Your task to perform on an android device: Open Google Chrome and open the bookmarks view Image 0: 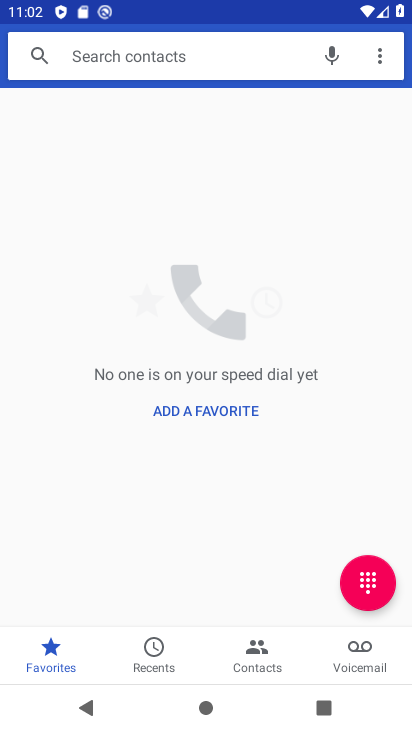
Step 0: press home button
Your task to perform on an android device: Open Google Chrome and open the bookmarks view Image 1: 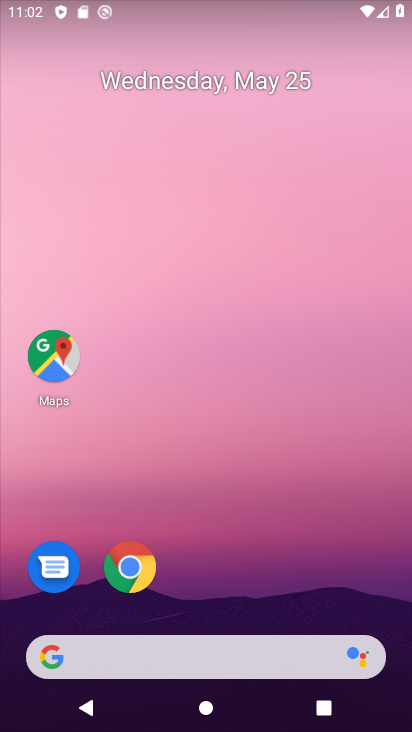
Step 1: click (134, 566)
Your task to perform on an android device: Open Google Chrome and open the bookmarks view Image 2: 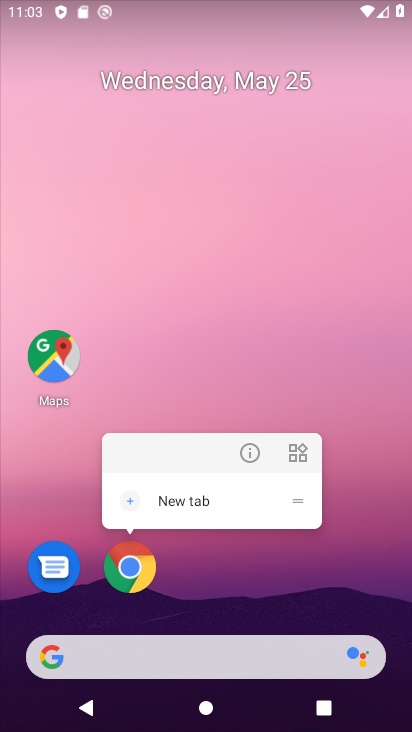
Step 2: click (149, 578)
Your task to perform on an android device: Open Google Chrome and open the bookmarks view Image 3: 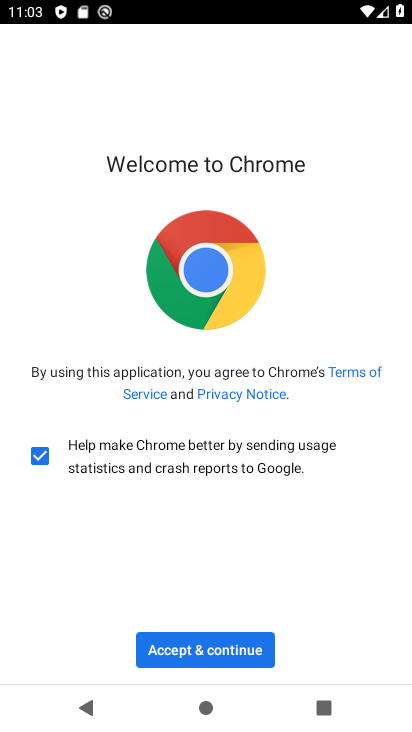
Step 3: click (225, 633)
Your task to perform on an android device: Open Google Chrome and open the bookmarks view Image 4: 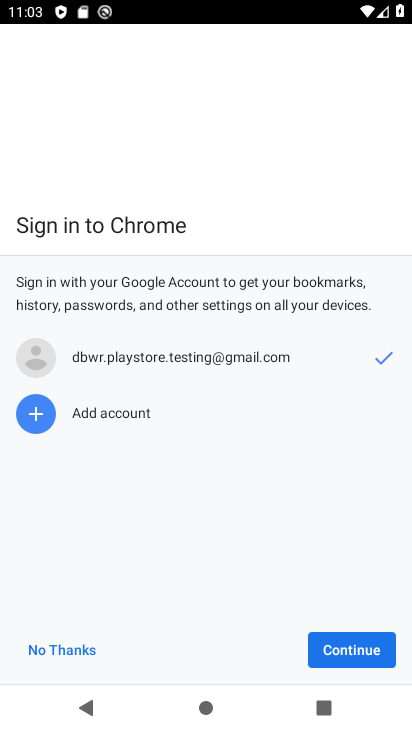
Step 4: click (341, 645)
Your task to perform on an android device: Open Google Chrome and open the bookmarks view Image 5: 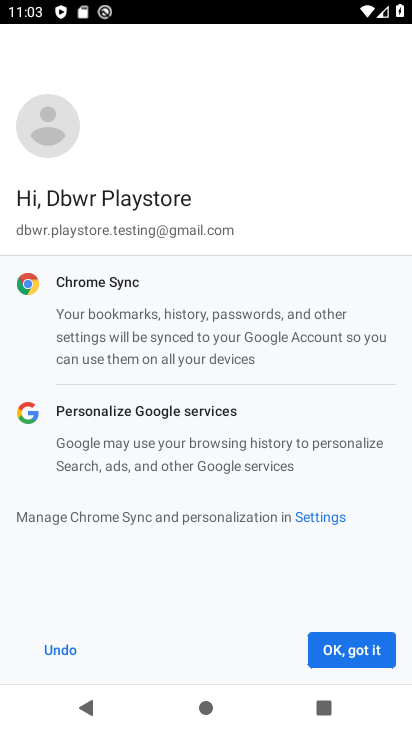
Step 5: click (341, 645)
Your task to perform on an android device: Open Google Chrome and open the bookmarks view Image 6: 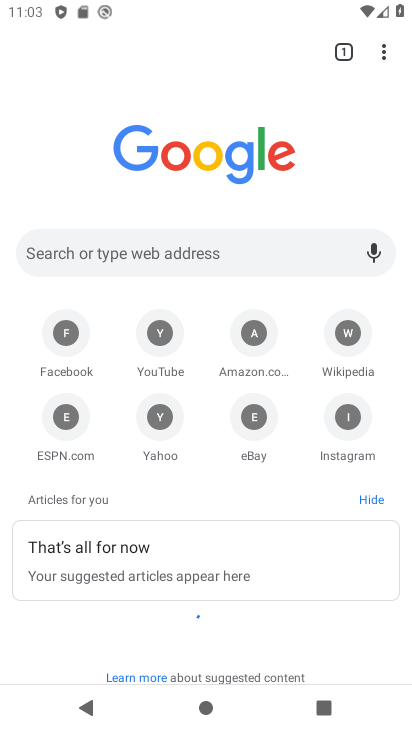
Step 6: click (376, 49)
Your task to perform on an android device: Open Google Chrome and open the bookmarks view Image 7: 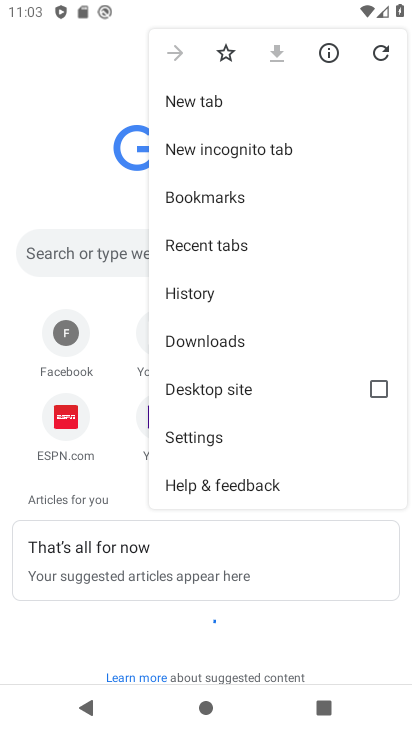
Step 7: click (275, 198)
Your task to perform on an android device: Open Google Chrome and open the bookmarks view Image 8: 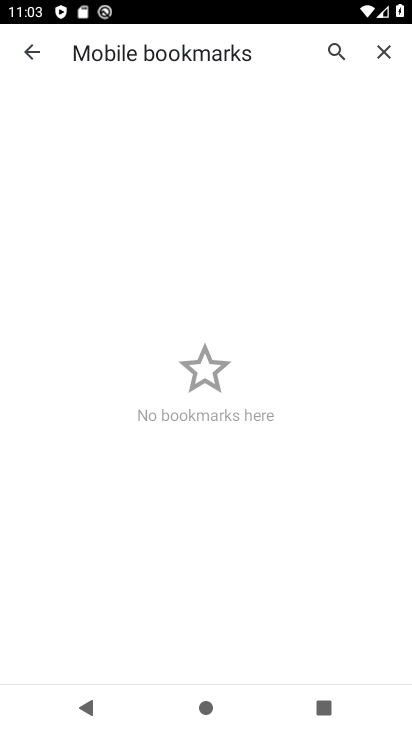
Step 8: task complete